Your task to perform on an android device: Set the phone to "Do not disturb". Image 0: 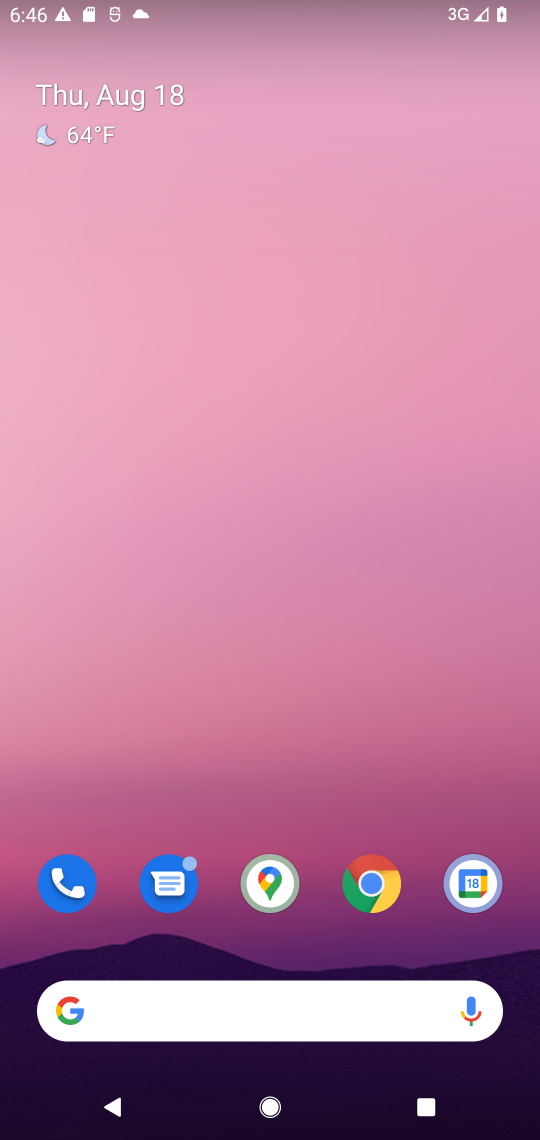
Step 0: drag from (33, 1077) to (296, 507)
Your task to perform on an android device: Set the phone to "Do not disturb". Image 1: 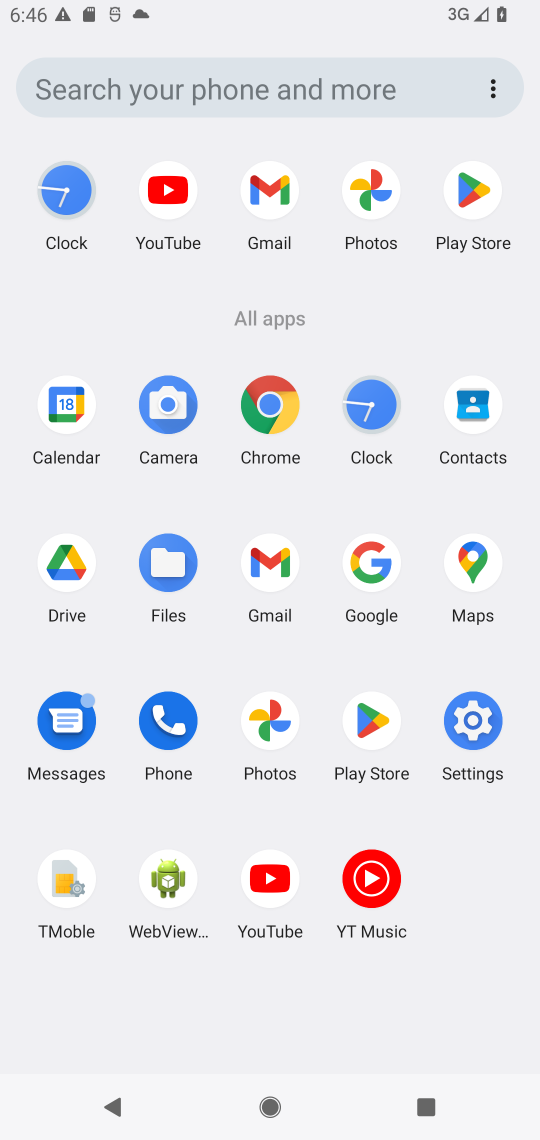
Step 1: click (485, 741)
Your task to perform on an android device: Set the phone to "Do not disturb". Image 2: 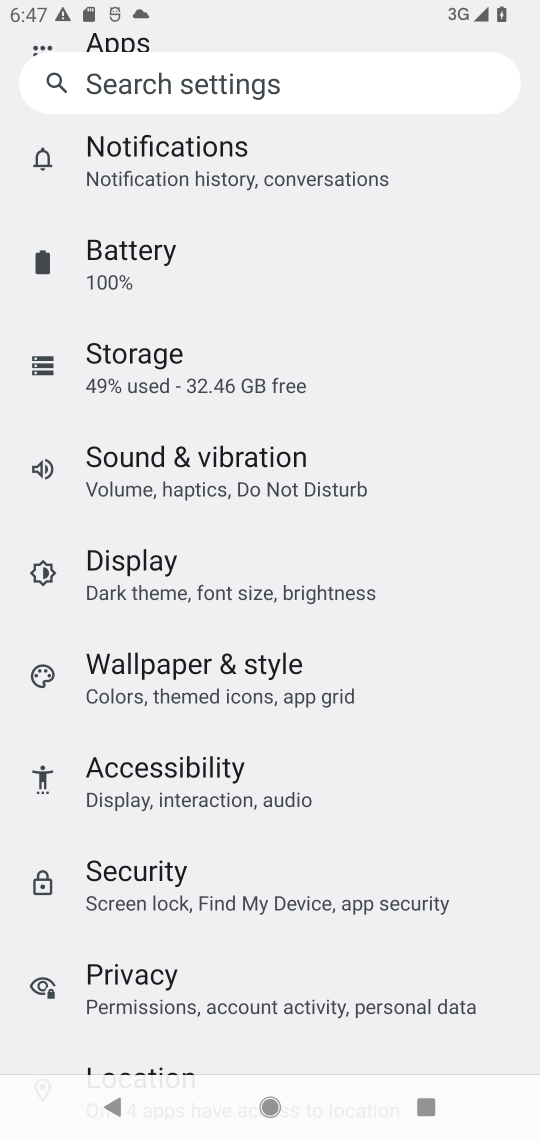
Step 2: click (224, 494)
Your task to perform on an android device: Set the phone to "Do not disturb". Image 3: 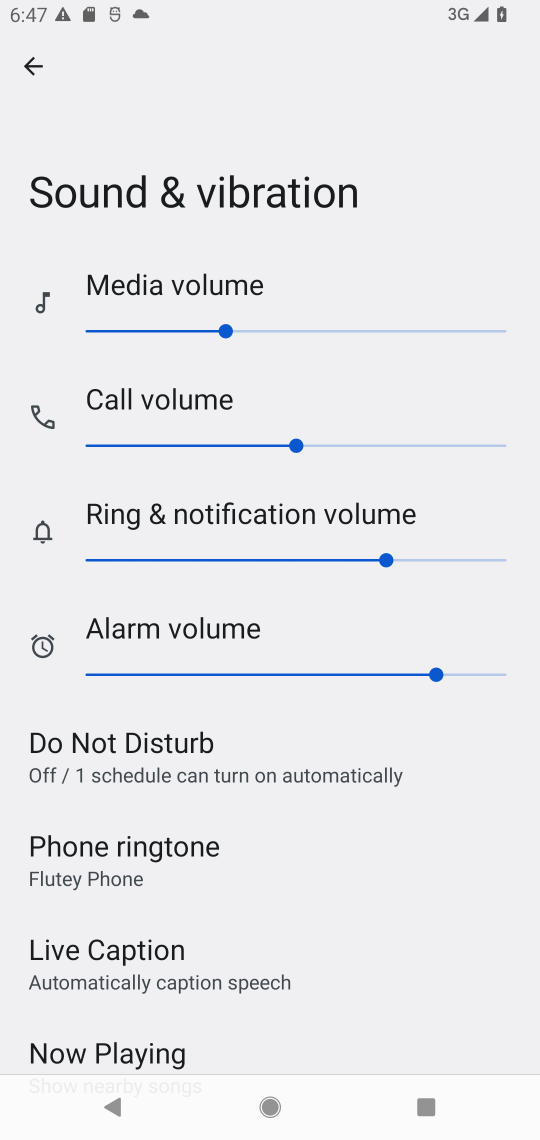
Step 3: task complete